Your task to perform on an android device: toggle priority inbox in the gmail app Image 0: 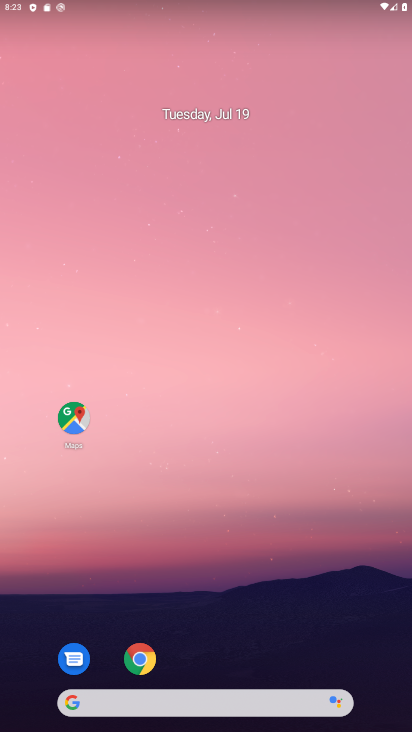
Step 0: drag from (247, 629) to (311, 129)
Your task to perform on an android device: toggle priority inbox in the gmail app Image 1: 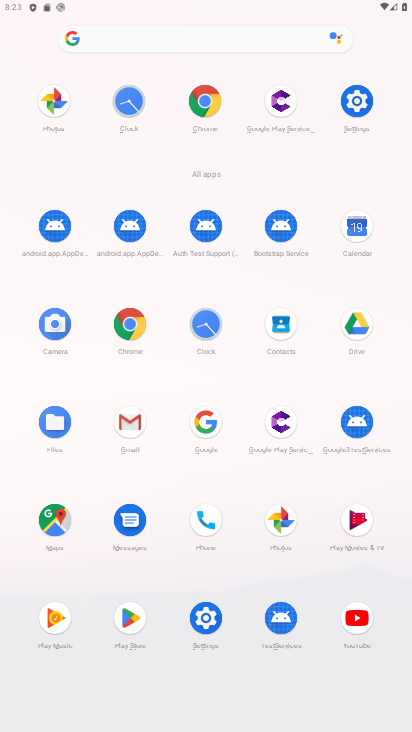
Step 1: click (132, 420)
Your task to perform on an android device: toggle priority inbox in the gmail app Image 2: 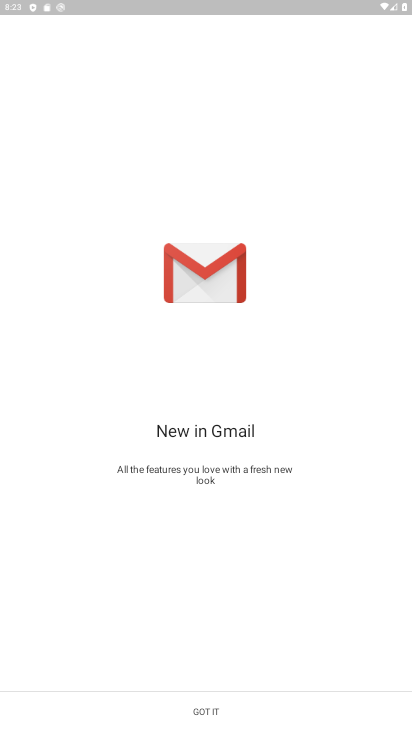
Step 2: click (256, 722)
Your task to perform on an android device: toggle priority inbox in the gmail app Image 3: 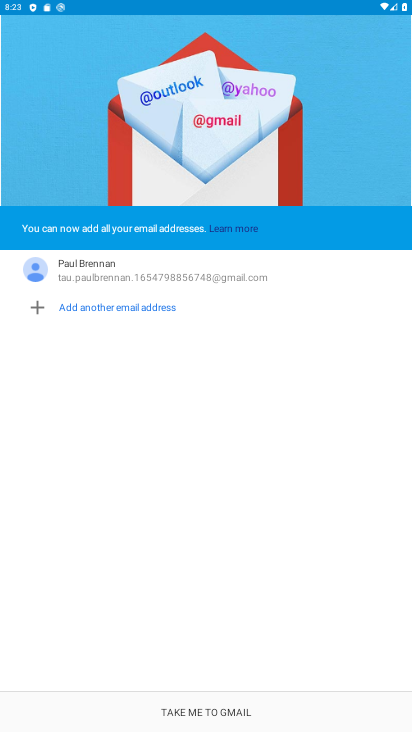
Step 3: click (256, 720)
Your task to perform on an android device: toggle priority inbox in the gmail app Image 4: 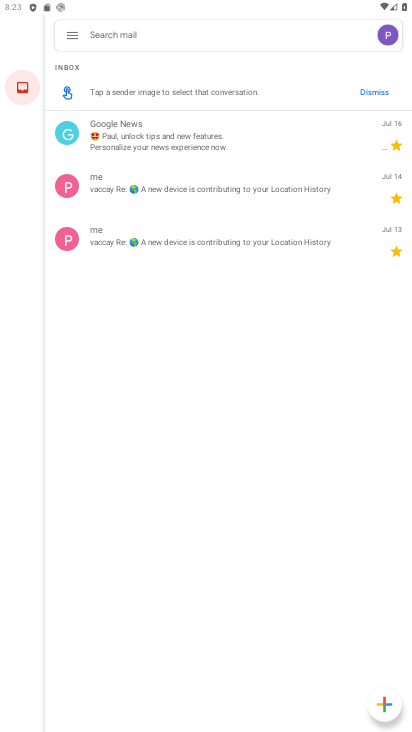
Step 4: click (71, 40)
Your task to perform on an android device: toggle priority inbox in the gmail app Image 5: 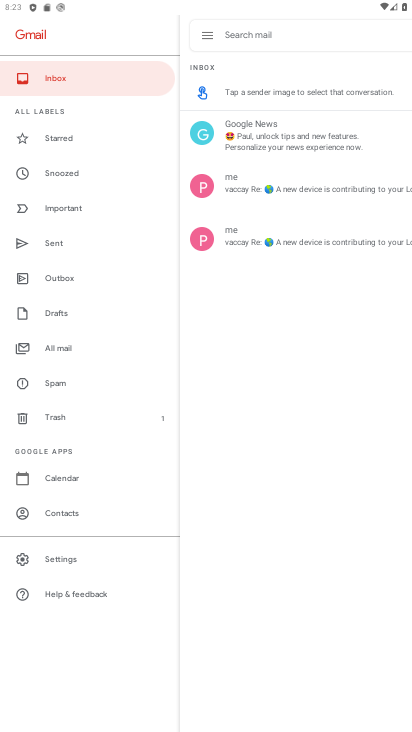
Step 5: click (82, 551)
Your task to perform on an android device: toggle priority inbox in the gmail app Image 6: 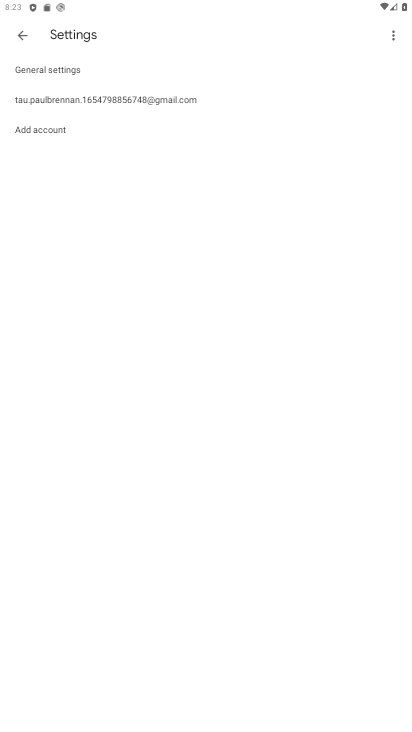
Step 6: click (200, 102)
Your task to perform on an android device: toggle priority inbox in the gmail app Image 7: 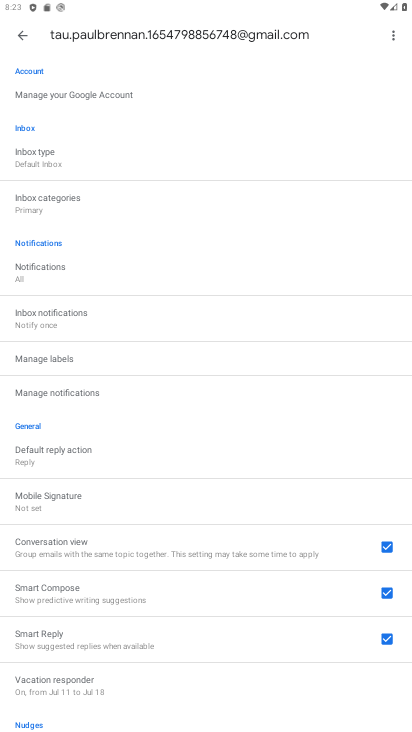
Step 7: click (143, 166)
Your task to perform on an android device: toggle priority inbox in the gmail app Image 8: 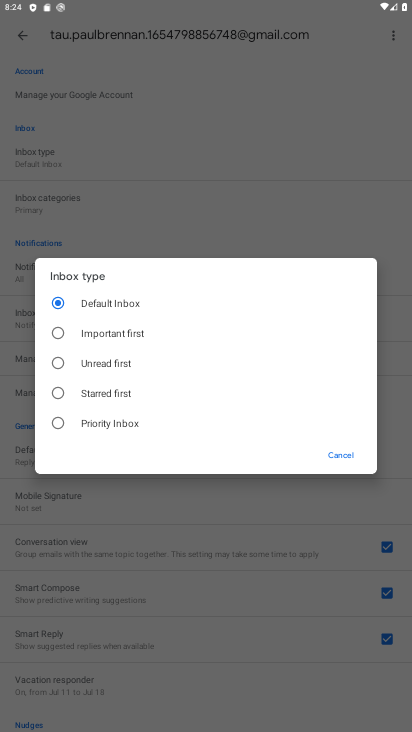
Step 8: click (121, 427)
Your task to perform on an android device: toggle priority inbox in the gmail app Image 9: 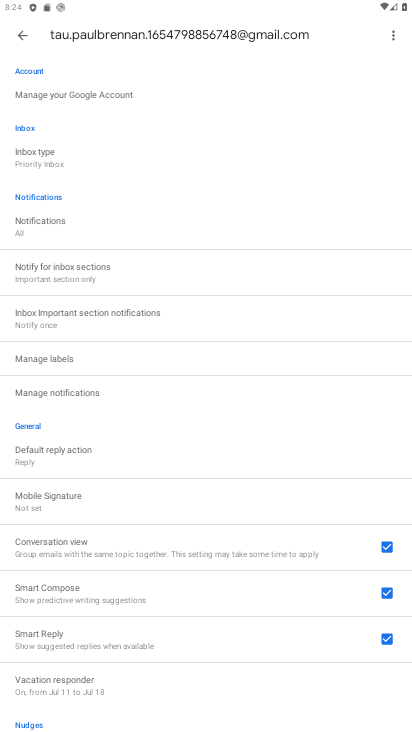
Step 9: task complete